Your task to perform on an android device: Open Google Maps and go to "Timeline" Image 0: 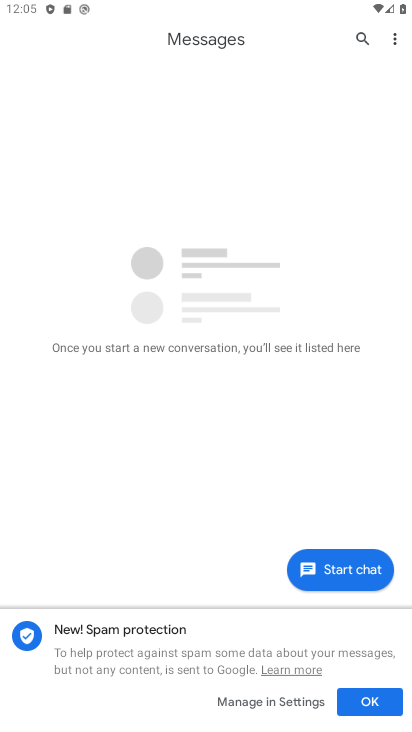
Step 0: press home button
Your task to perform on an android device: Open Google Maps and go to "Timeline" Image 1: 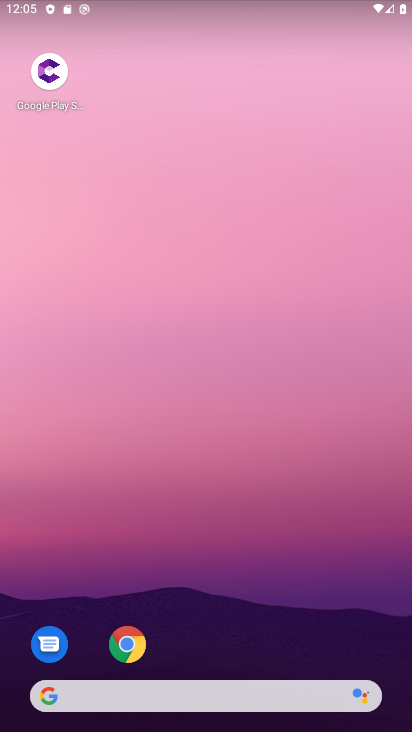
Step 1: drag from (266, 616) to (259, 84)
Your task to perform on an android device: Open Google Maps and go to "Timeline" Image 2: 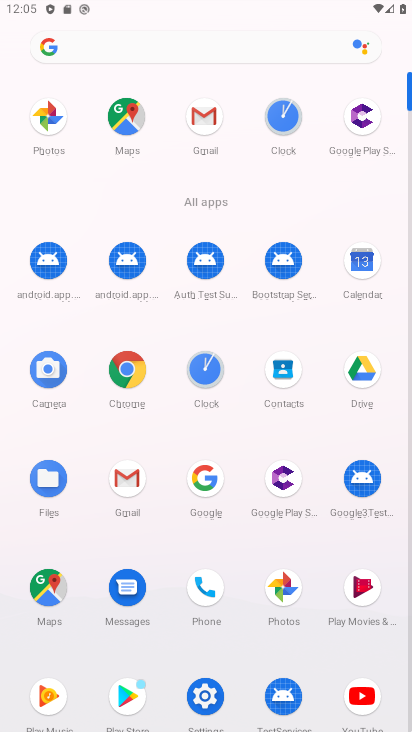
Step 2: click (50, 583)
Your task to perform on an android device: Open Google Maps and go to "Timeline" Image 3: 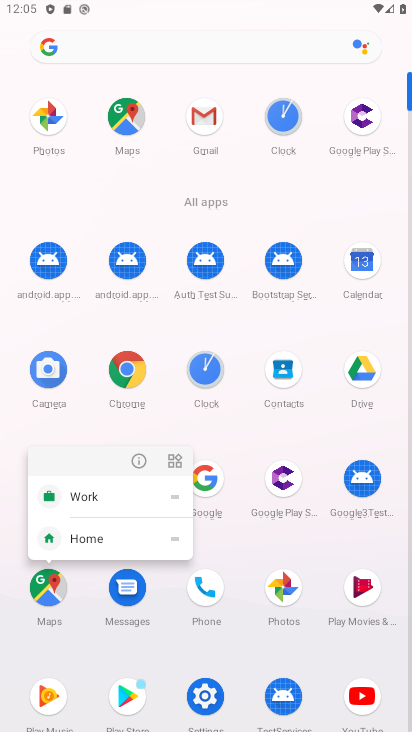
Step 3: click (53, 591)
Your task to perform on an android device: Open Google Maps and go to "Timeline" Image 4: 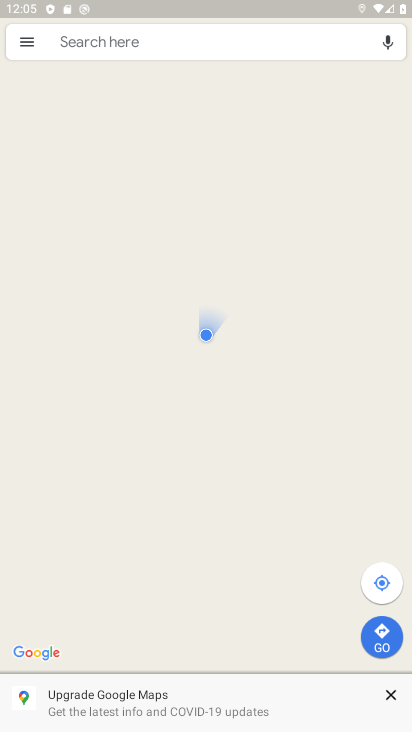
Step 4: click (26, 37)
Your task to perform on an android device: Open Google Maps and go to "Timeline" Image 5: 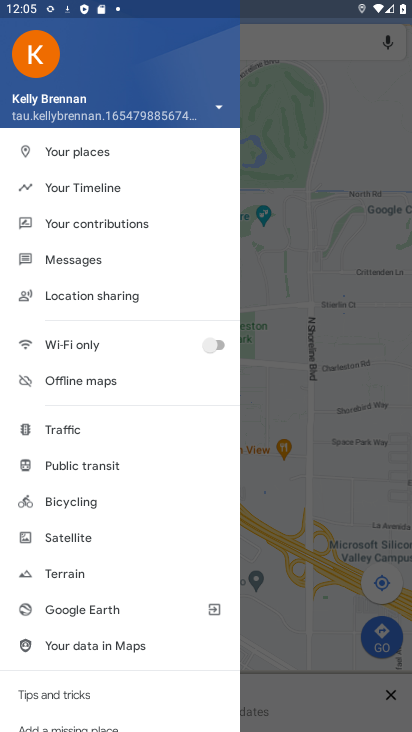
Step 5: click (94, 184)
Your task to perform on an android device: Open Google Maps and go to "Timeline" Image 6: 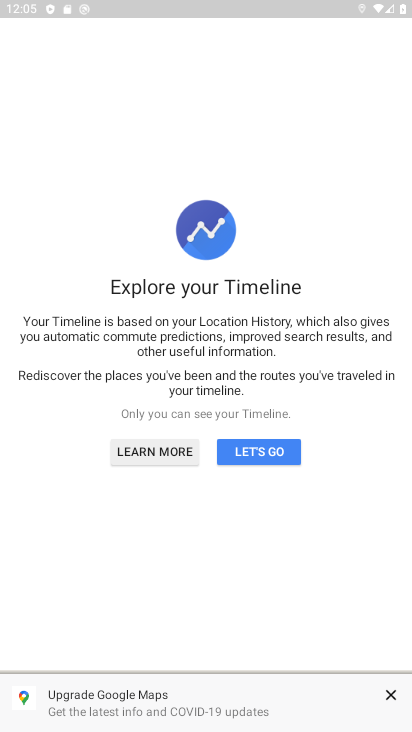
Step 6: click (273, 454)
Your task to perform on an android device: Open Google Maps and go to "Timeline" Image 7: 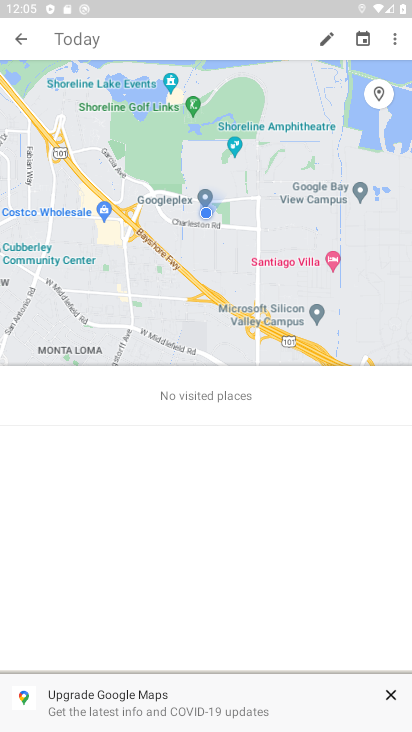
Step 7: task complete